Your task to perform on an android device: toggle notification dots Image 0: 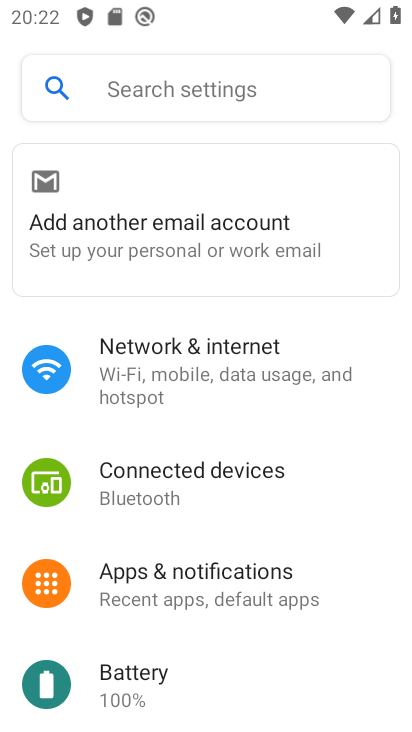
Step 0: click (210, 584)
Your task to perform on an android device: toggle notification dots Image 1: 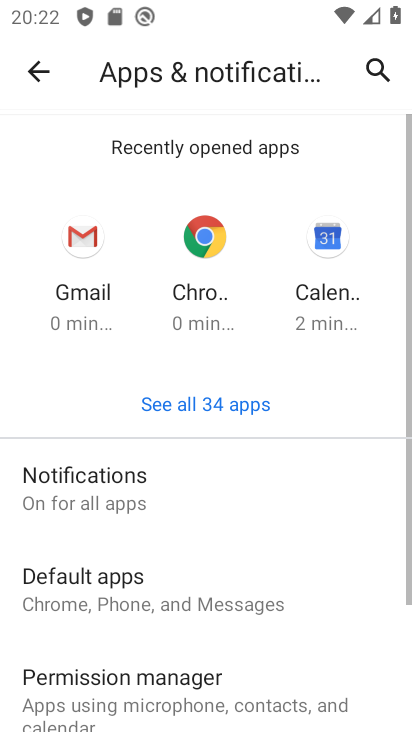
Step 1: click (45, 488)
Your task to perform on an android device: toggle notification dots Image 2: 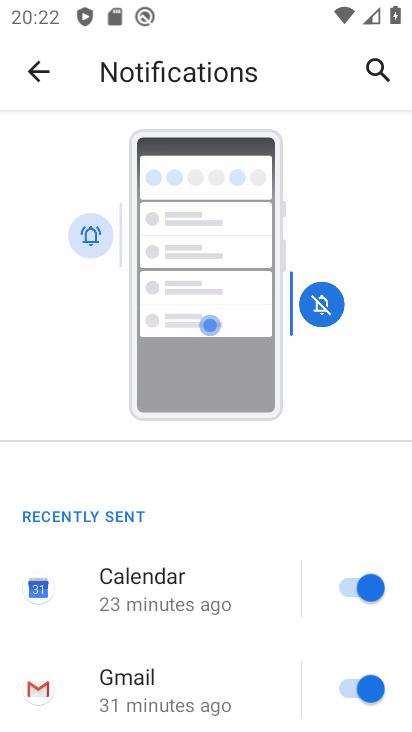
Step 2: drag from (274, 666) to (261, 186)
Your task to perform on an android device: toggle notification dots Image 3: 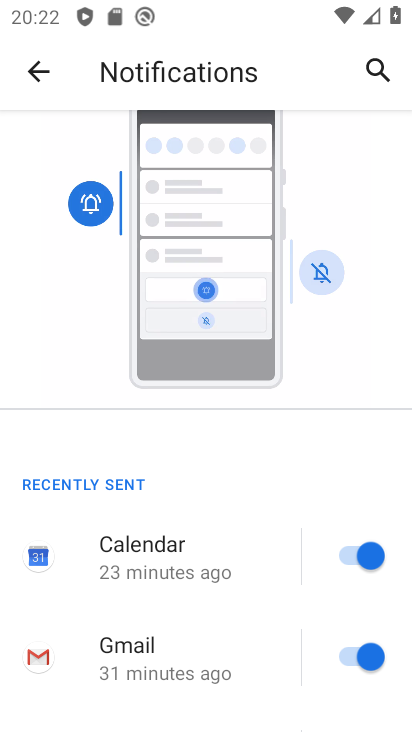
Step 3: drag from (270, 521) to (275, 224)
Your task to perform on an android device: toggle notification dots Image 4: 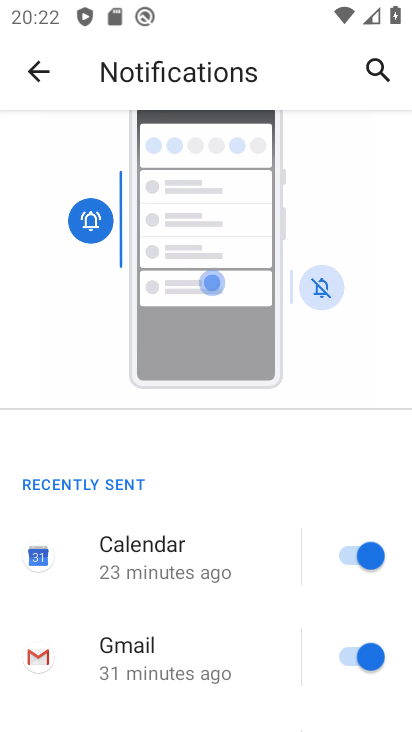
Step 4: drag from (280, 609) to (272, 291)
Your task to perform on an android device: toggle notification dots Image 5: 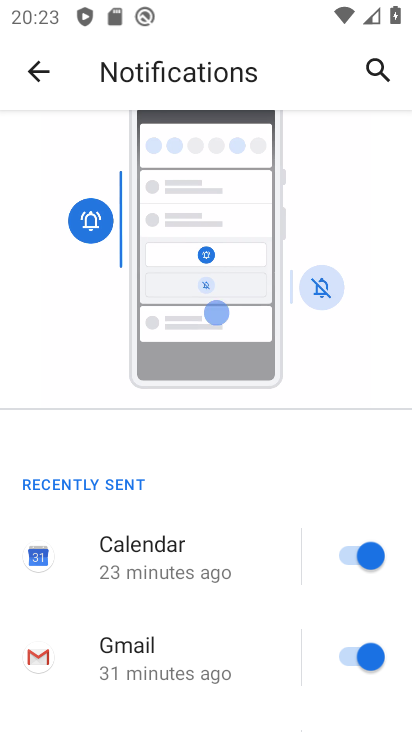
Step 5: drag from (289, 526) to (267, 218)
Your task to perform on an android device: toggle notification dots Image 6: 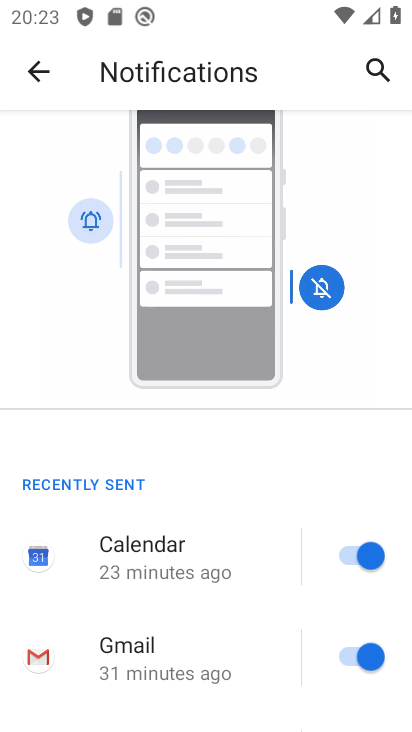
Step 6: drag from (394, 467) to (385, 188)
Your task to perform on an android device: toggle notification dots Image 7: 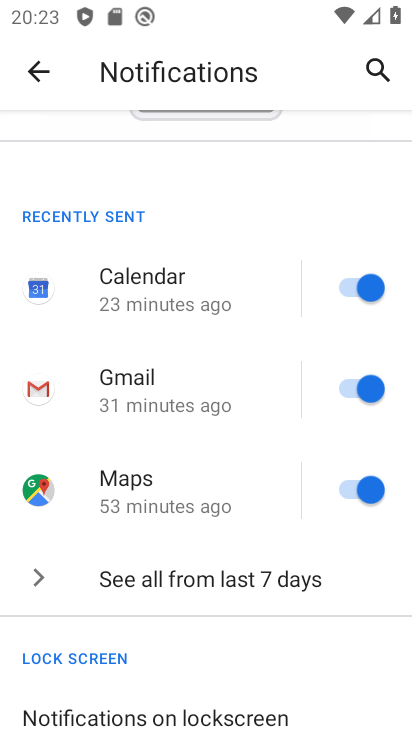
Step 7: drag from (299, 494) to (314, 180)
Your task to perform on an android device: toggle notification dots Image 8: 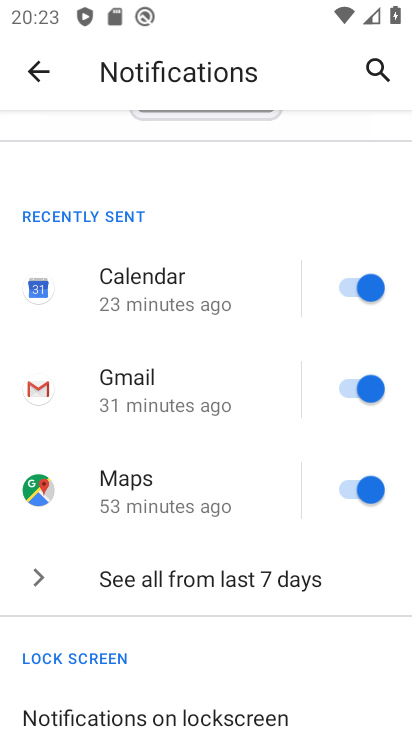
Step 8: drag from (393, 264) to (408, 59)
Your task to perform on an android device: toggle notification dots Image 9: 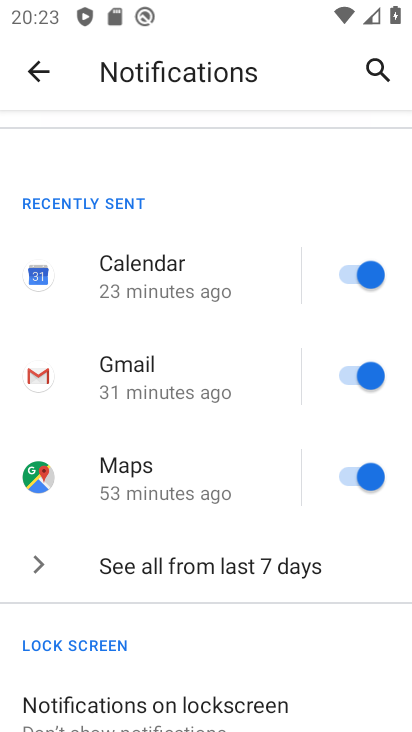
Step 9: drag from (403, 562) to (408, 500)
Your task to perform on an android device: toggle notification dots Image 10: 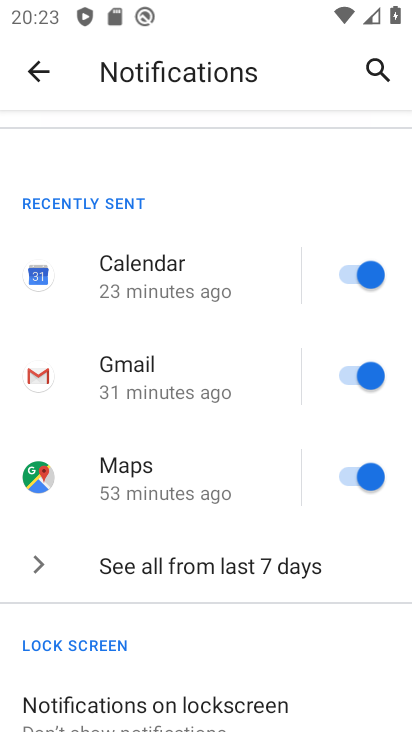
Step 10: click (403, 528)
Your task to perform on an android device: toggle notification dots Image 11: 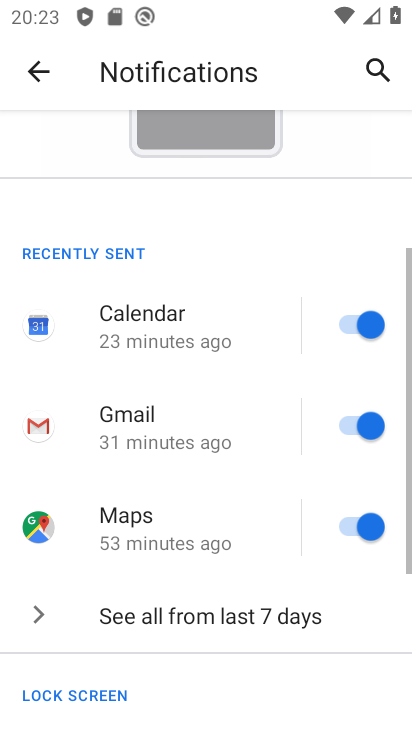
Step 11: drag from (402, 651) to (407, 432)
Your task to perform on an android device: toggle notification dots Image 12: 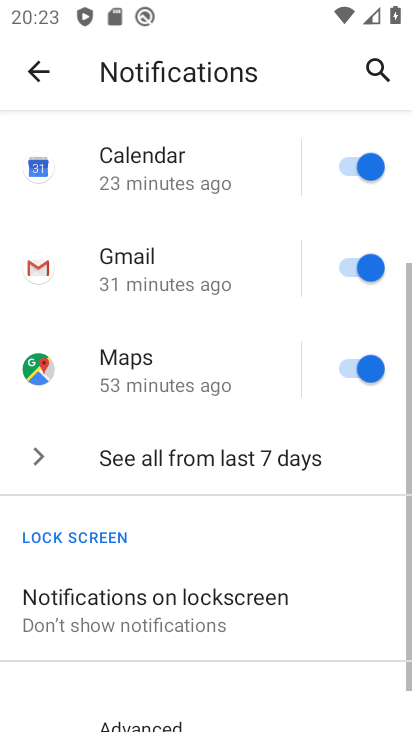
Step 12: drag from (274, 677) to (286, 286)
Your task to perform on an android device: toggle notification dots Image 13: 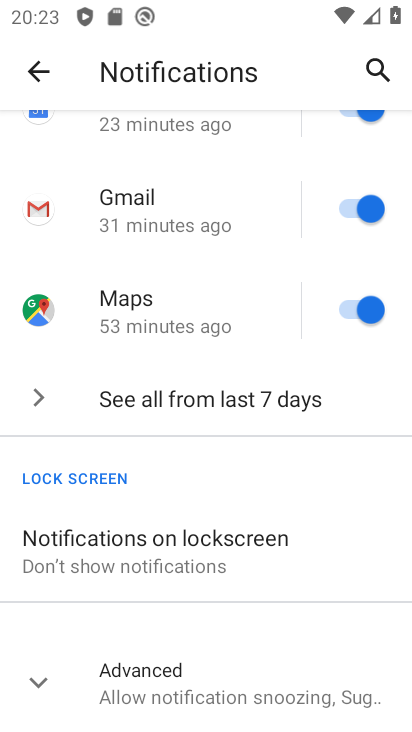
Step 13: click (32, 677)
Your task to perform on an android device: toggle notification dots Image 14: 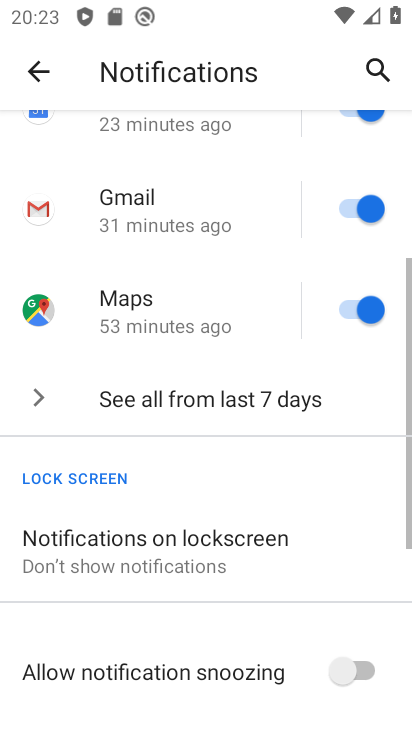
Step 14: drag from (257, 638) to (277, 191)
Your task to perform on an android device: toggle notification dots Image 15: 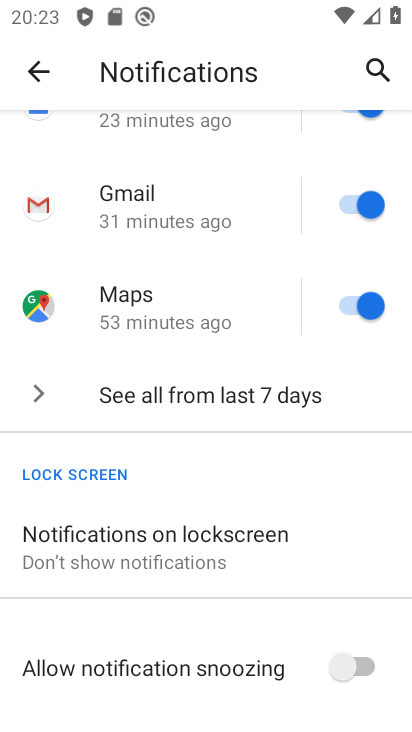
Step 15: drag from (292, 624) to (303, 165)
Your task to perform on an android device: toggle notification dots Image 16: 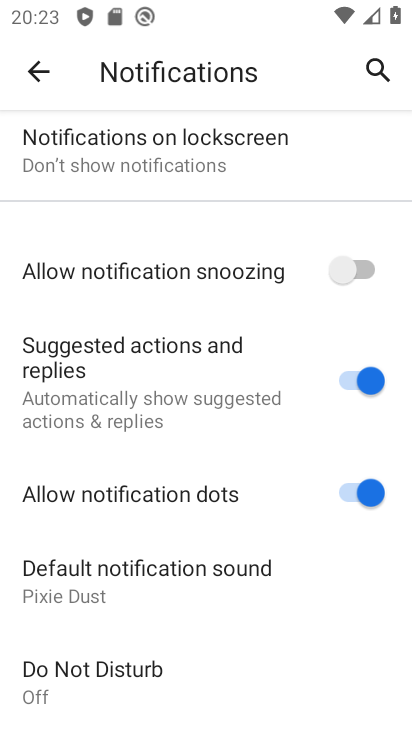
Step 16: click (345, 490)
Your task to perform on an android device: toggle notification dots Image 17: 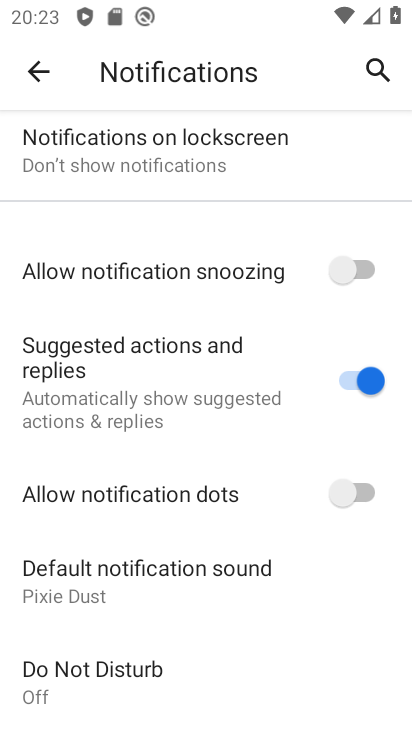
Step 17: task complete